Your task to perform on an android device: turn pop-ups on in chrome Image 0: 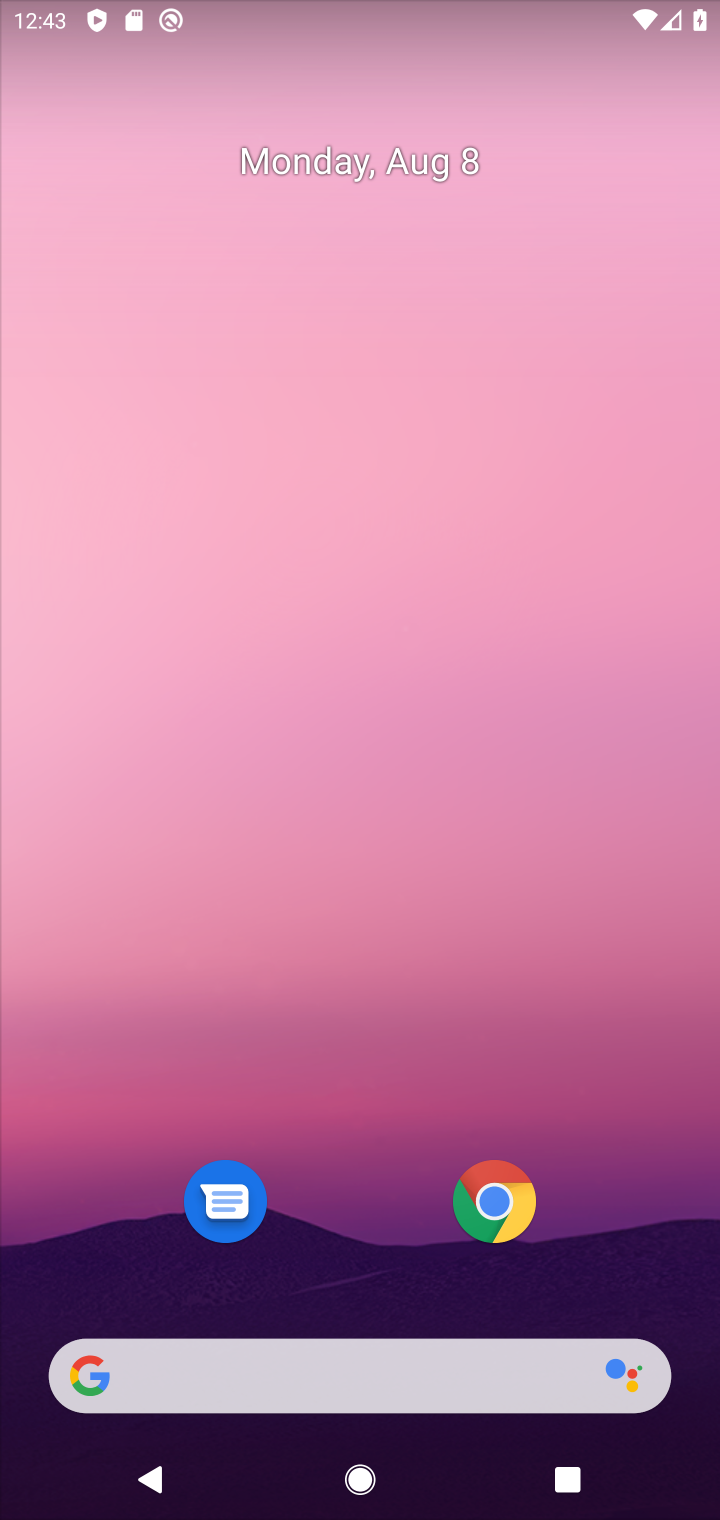
Step 0: drag from (438, 1405) to (378, 183)
Your task to perform on an android device: turn pop-ups on in chrome Image 1: 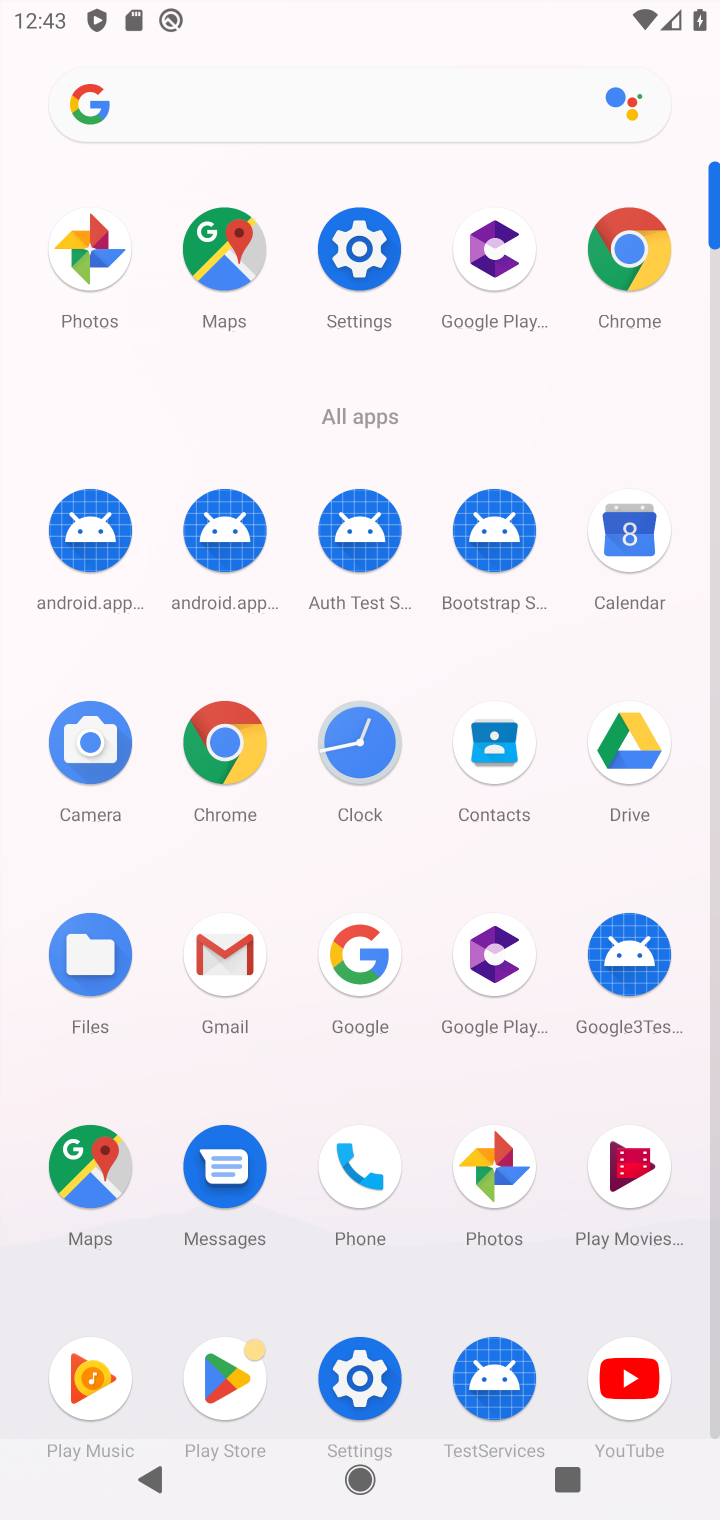
Step 1: click (350, 273)
Your task to perform on an android device: turn pop-ups on in chrome Image 2: 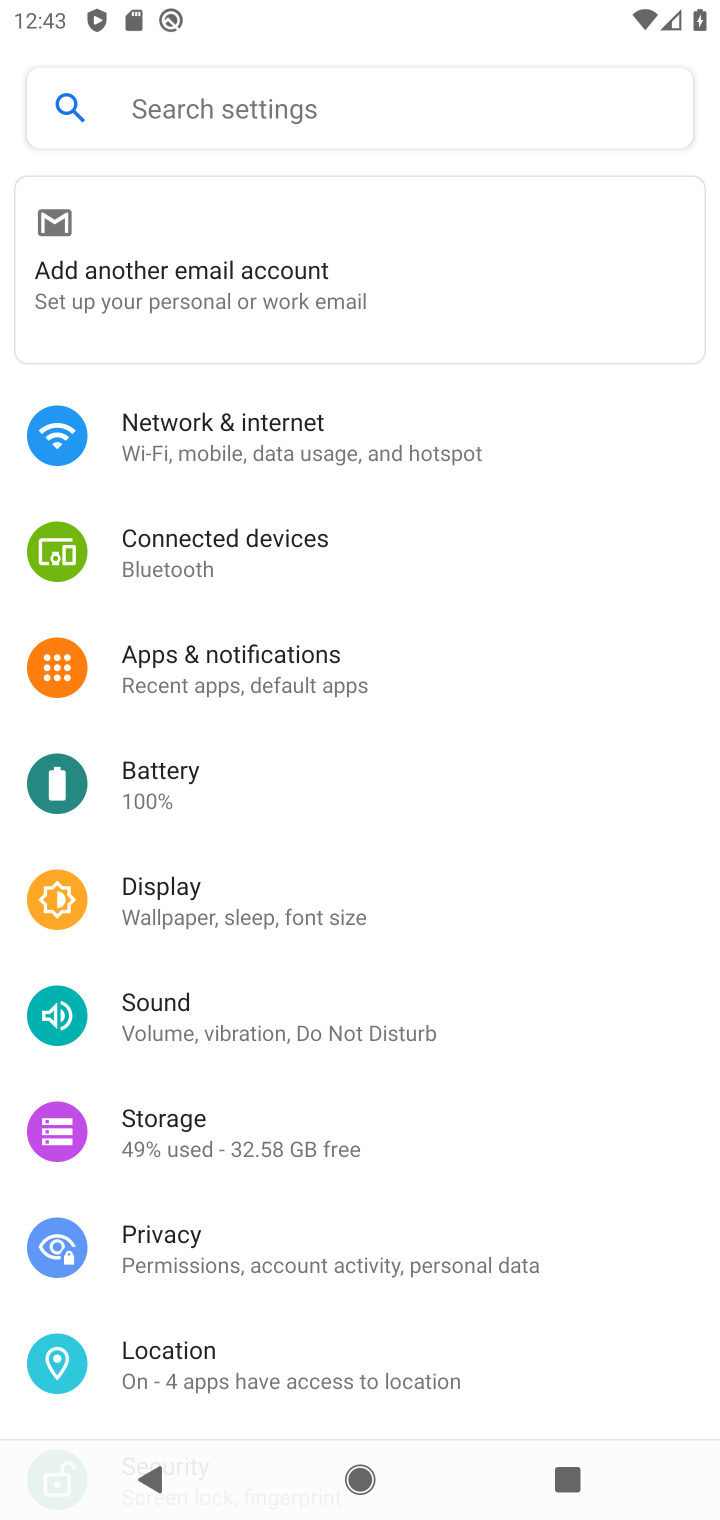
Step 2: press home button
Your task to perform on an android device: turn pop-ups on in chrome Image 3: 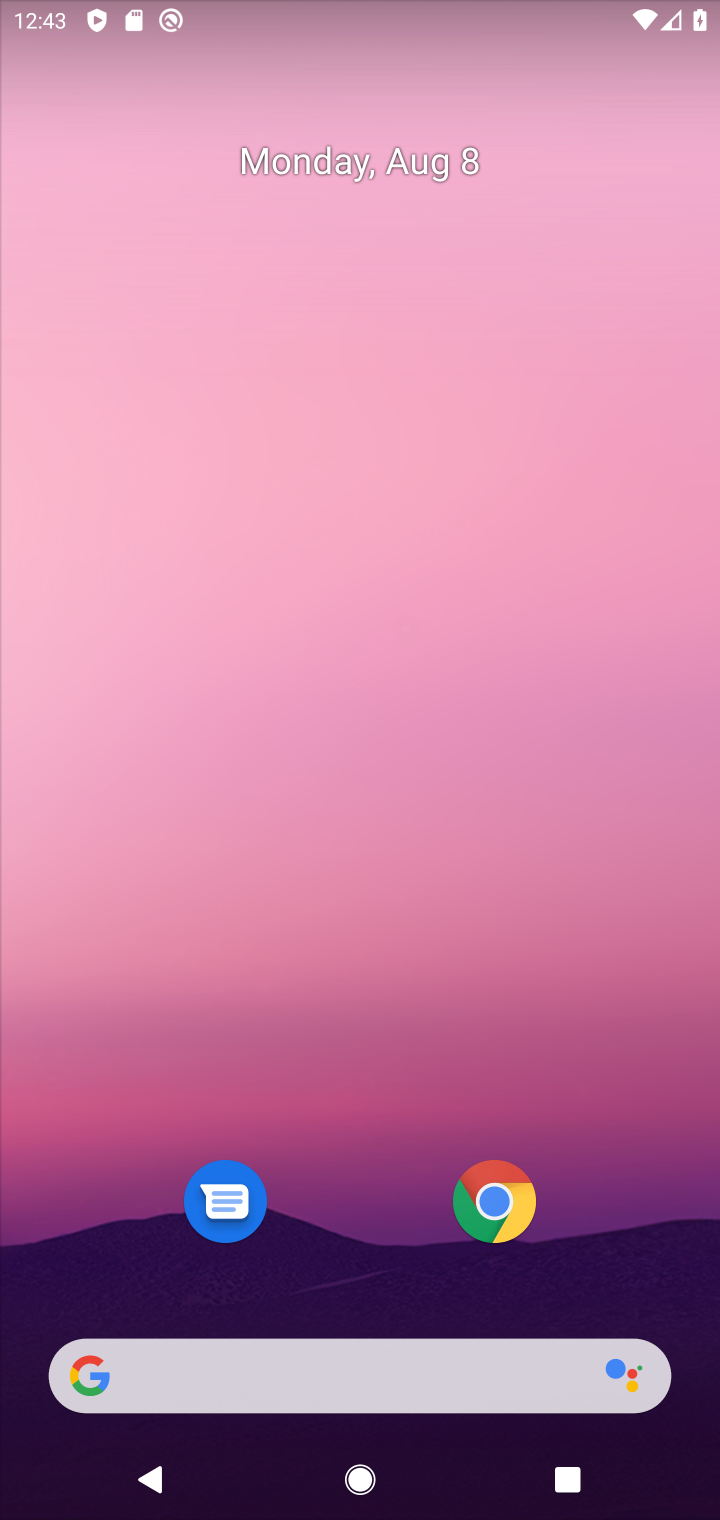
Step 3: click (494, 1194)
Your task to perform on an android device: turn pop-ups on in chrome Image 4: 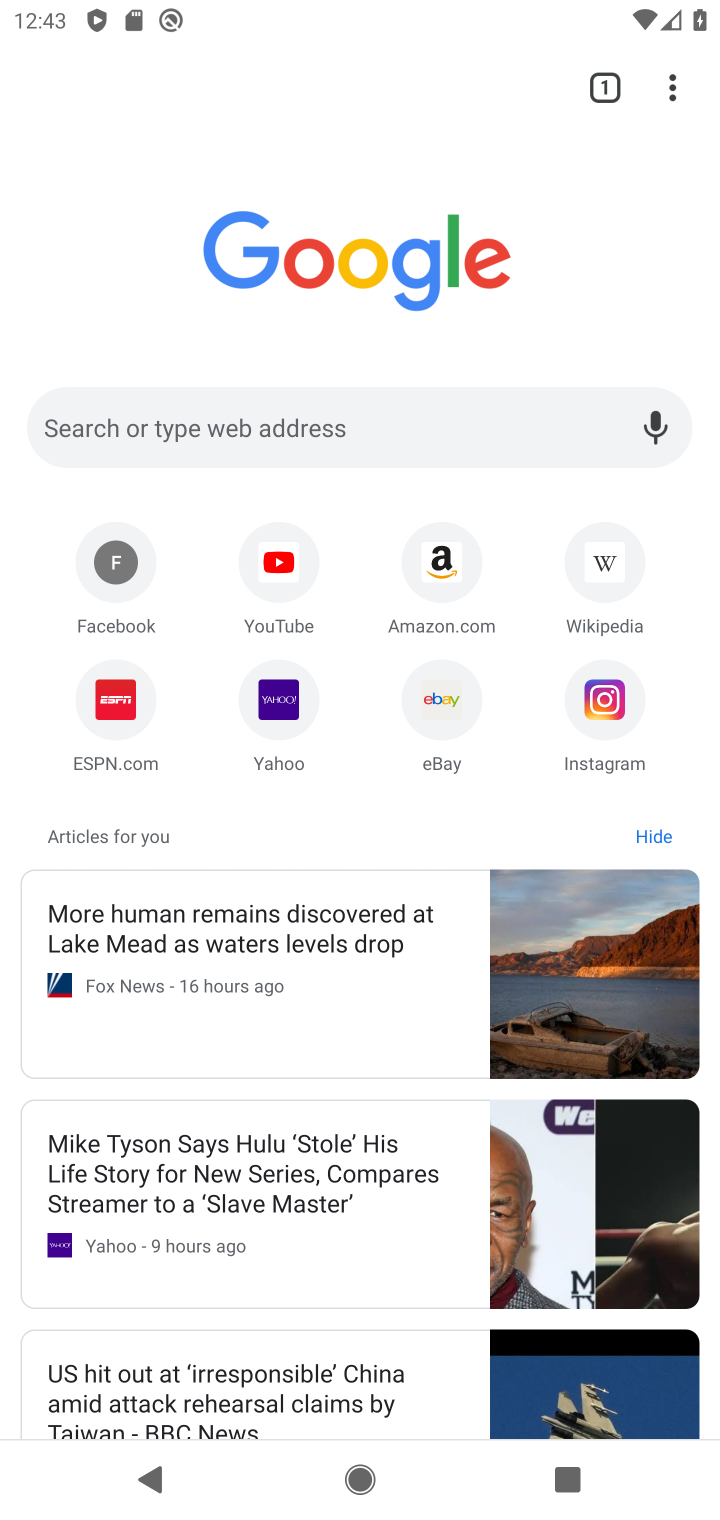
Step 4: click (681, 99)
Your task to perform on an android device: turn pop-ups on in chrome Image 5: 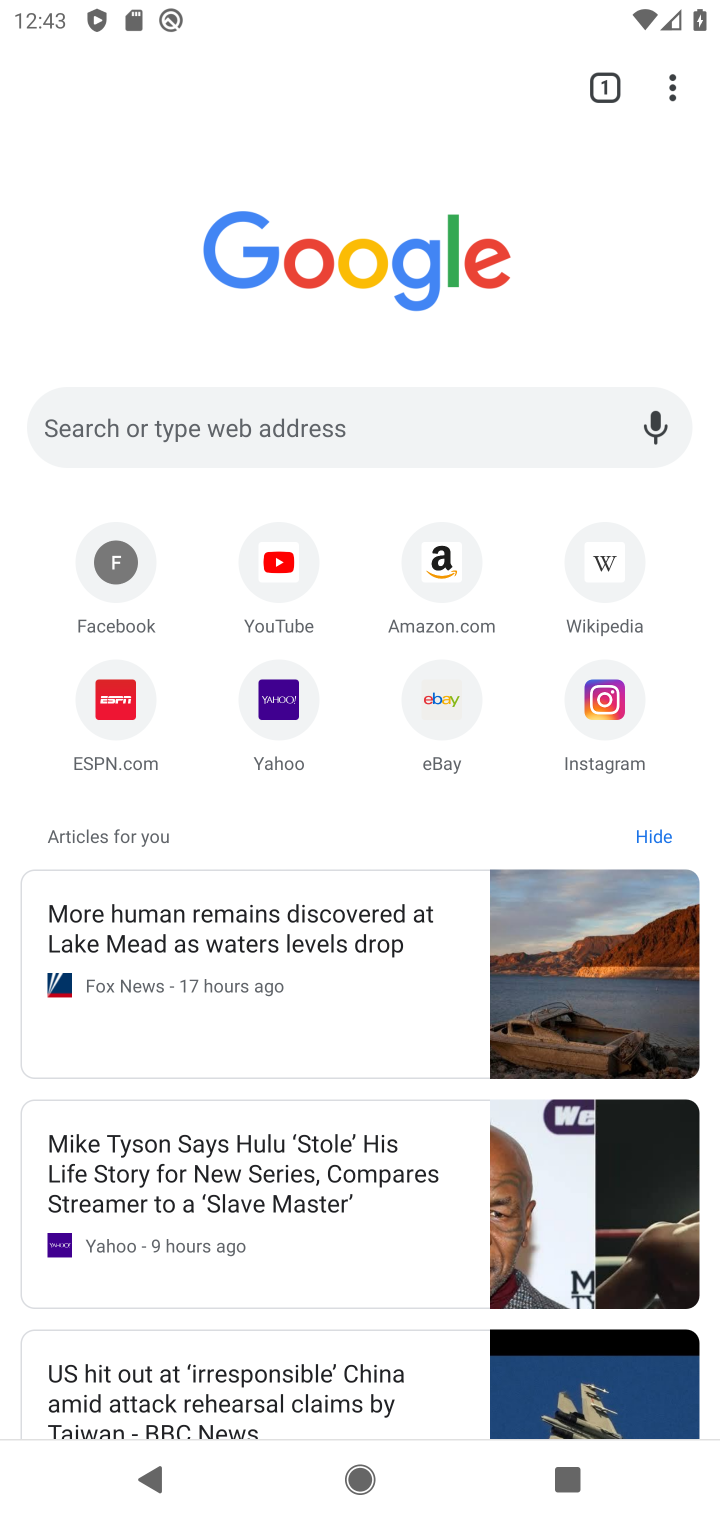
Step 5: click (670, 104)
Your task to perform on an android device: turn pop-ups on in chrome Image 6: 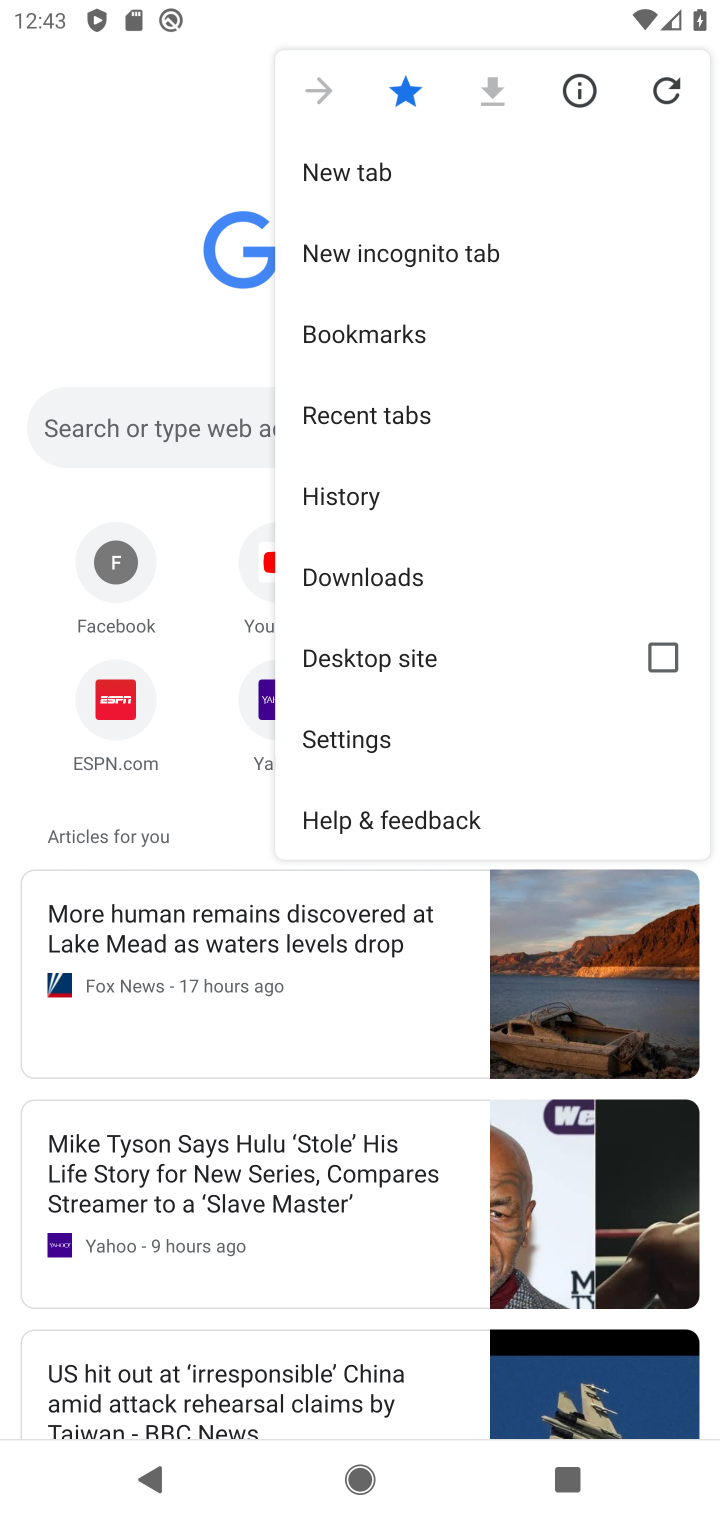
Step 6: click (353, 738)
Your task to perform on an android device: turn pop-ups on in chrome Image 7: 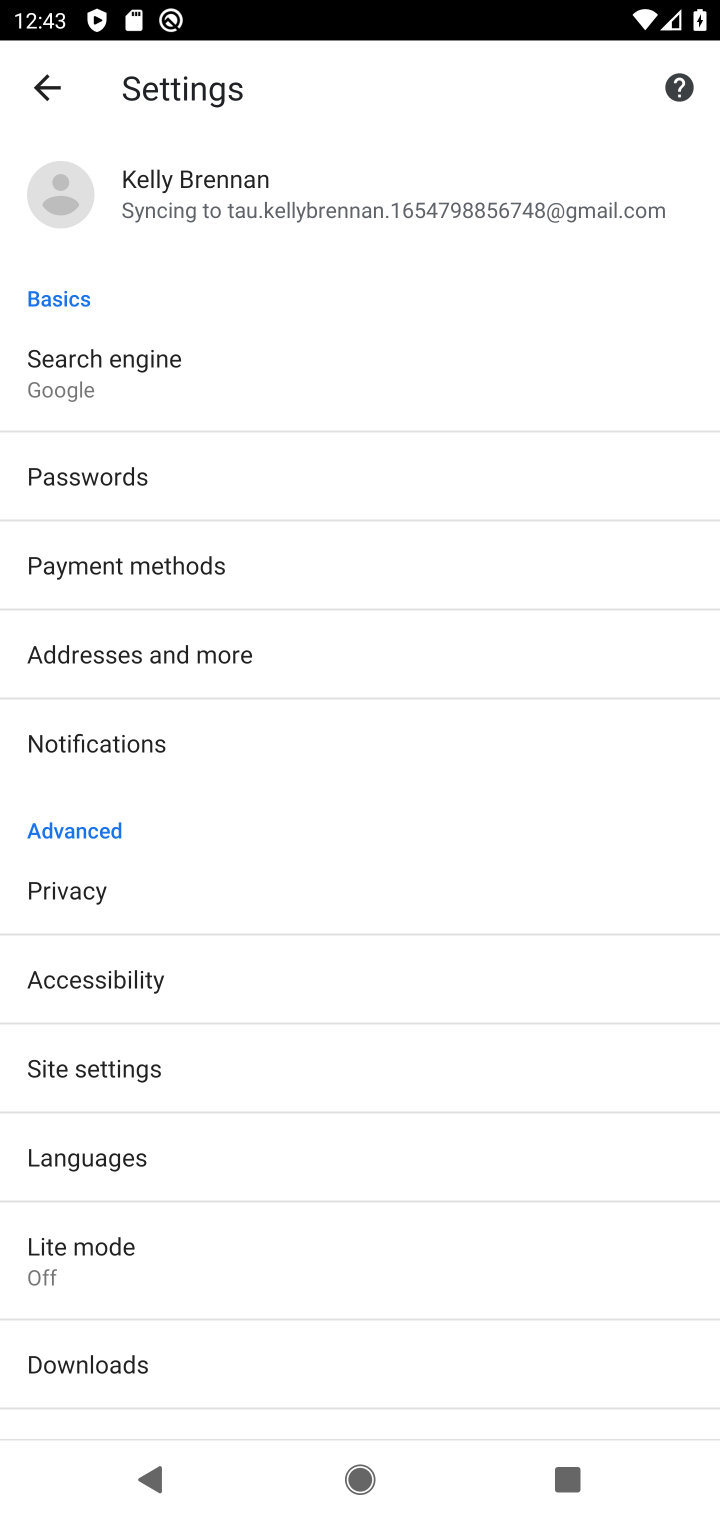
Step 7: drag from (252, 1182) to (309, 983)
Your task to perform on an android device: turn pop-ups on in chrome Image 8: 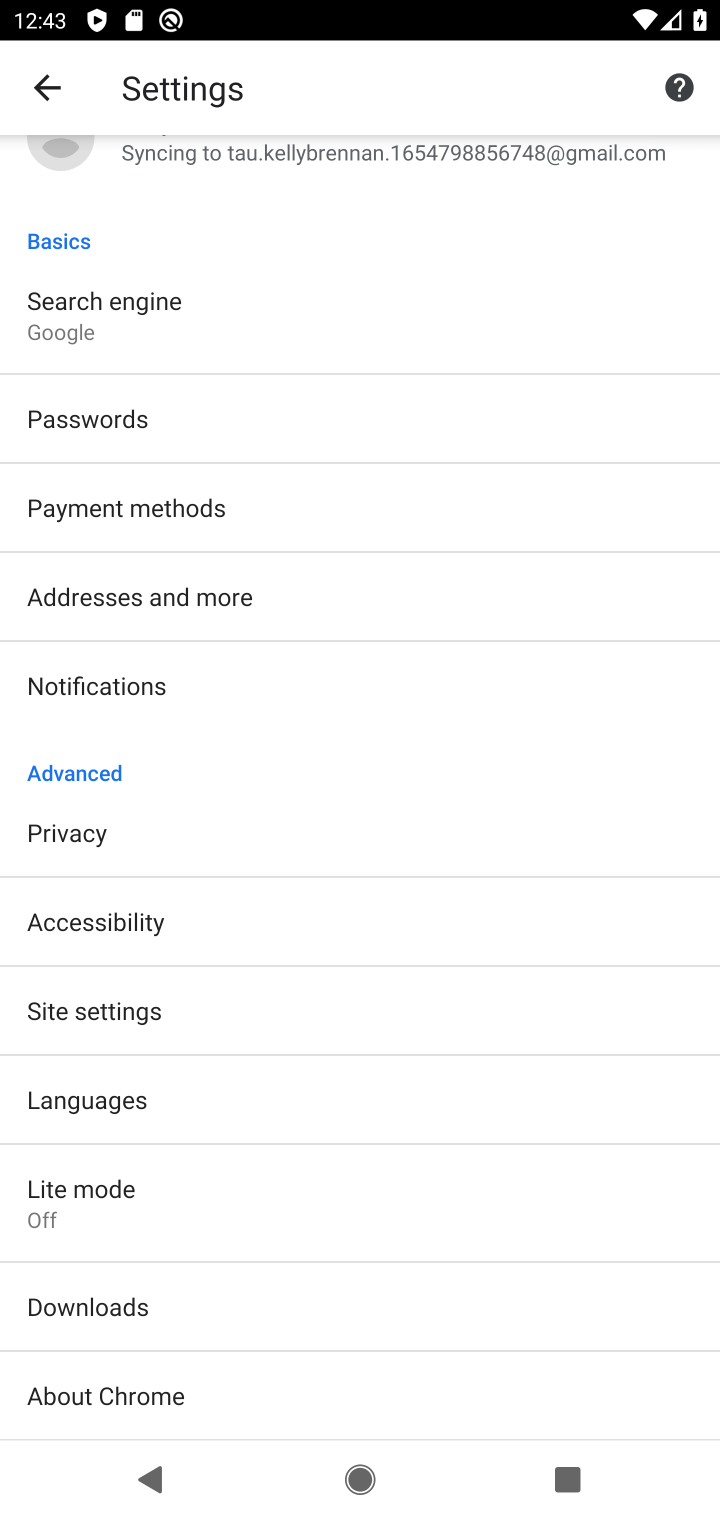
Step 8: click (136, 1015)
Your task to perform on an android device: turn pop-ups on in chrome Image 9: 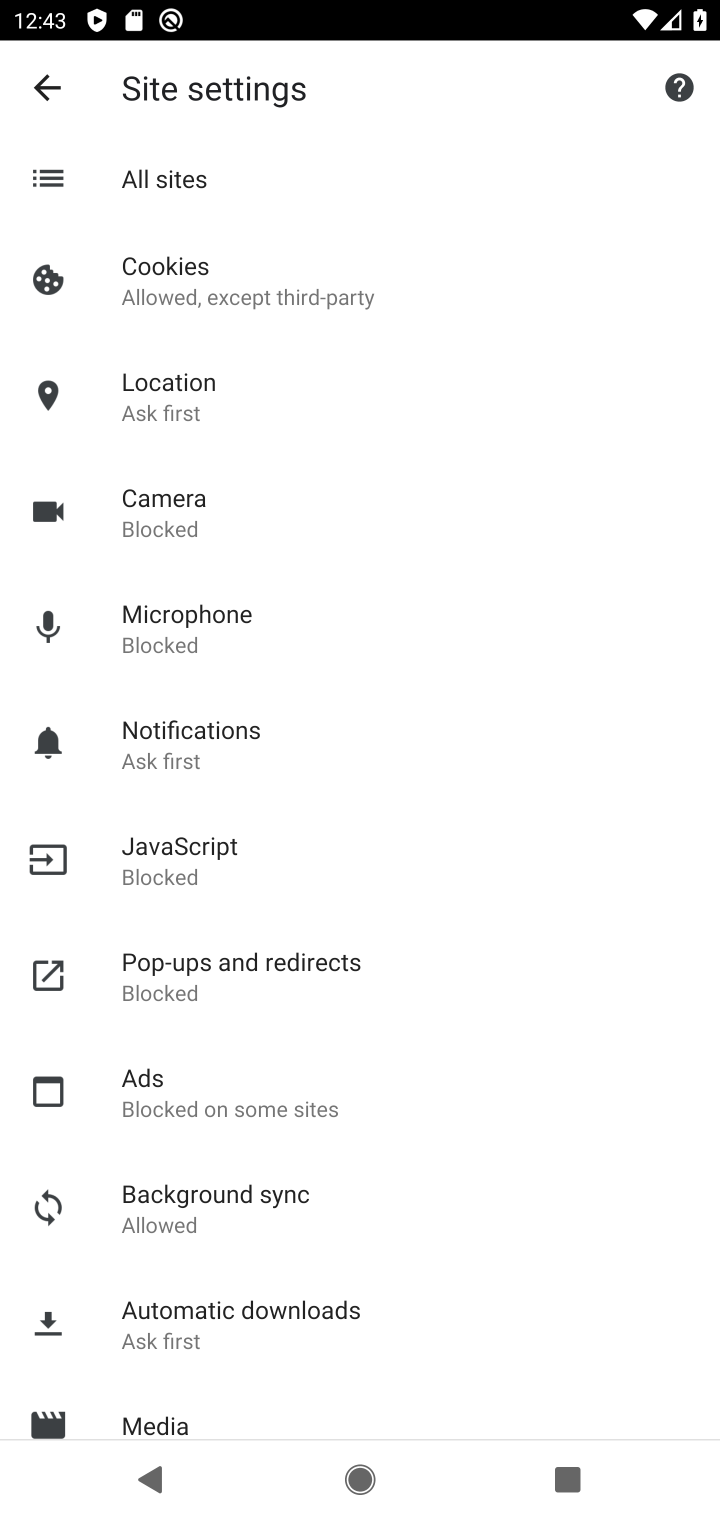
Step 9: click (248, 958)
Your task to perform on an android device: turn pop-ups on in chrome Image 10: 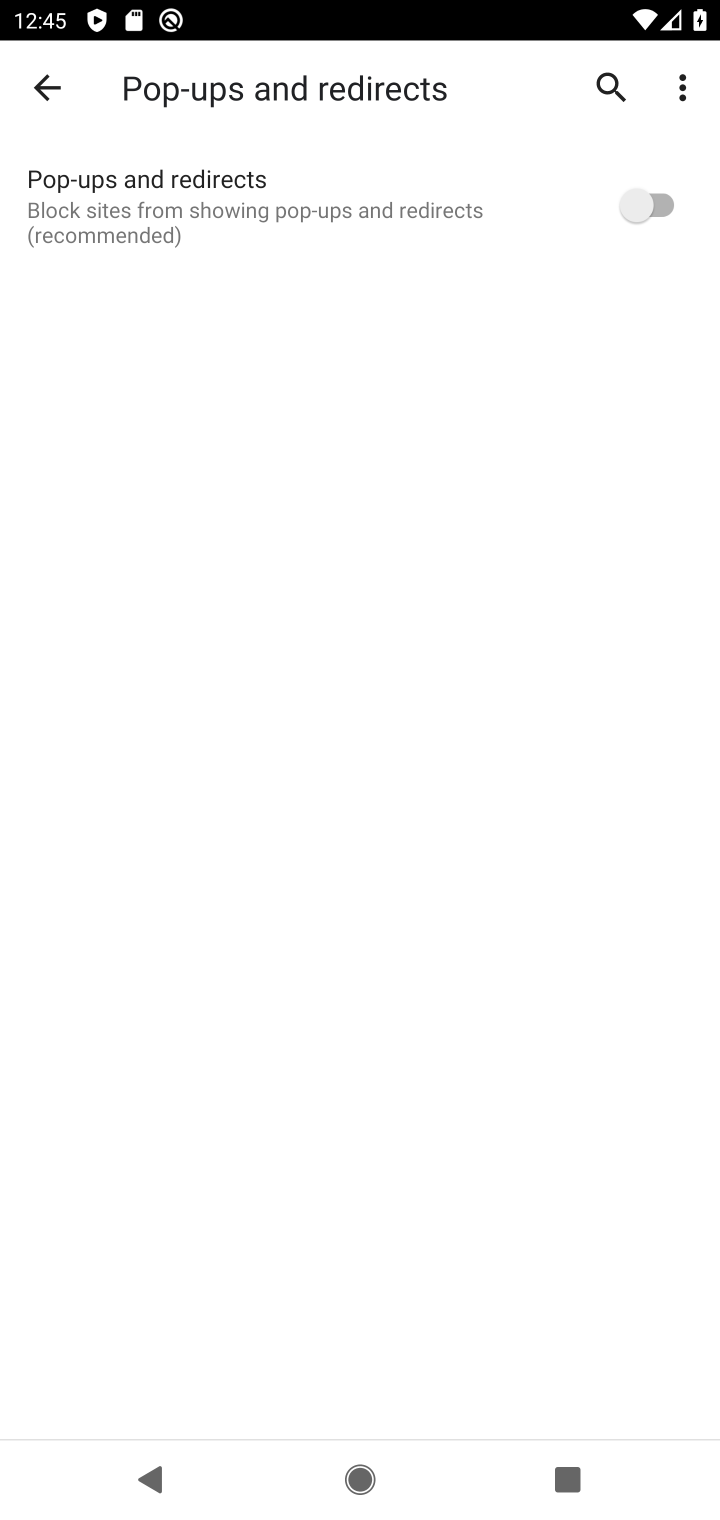
Step 10: click (624, 228)
Your task to perform on an android device: turn pop-ups on in chrome Image 11: 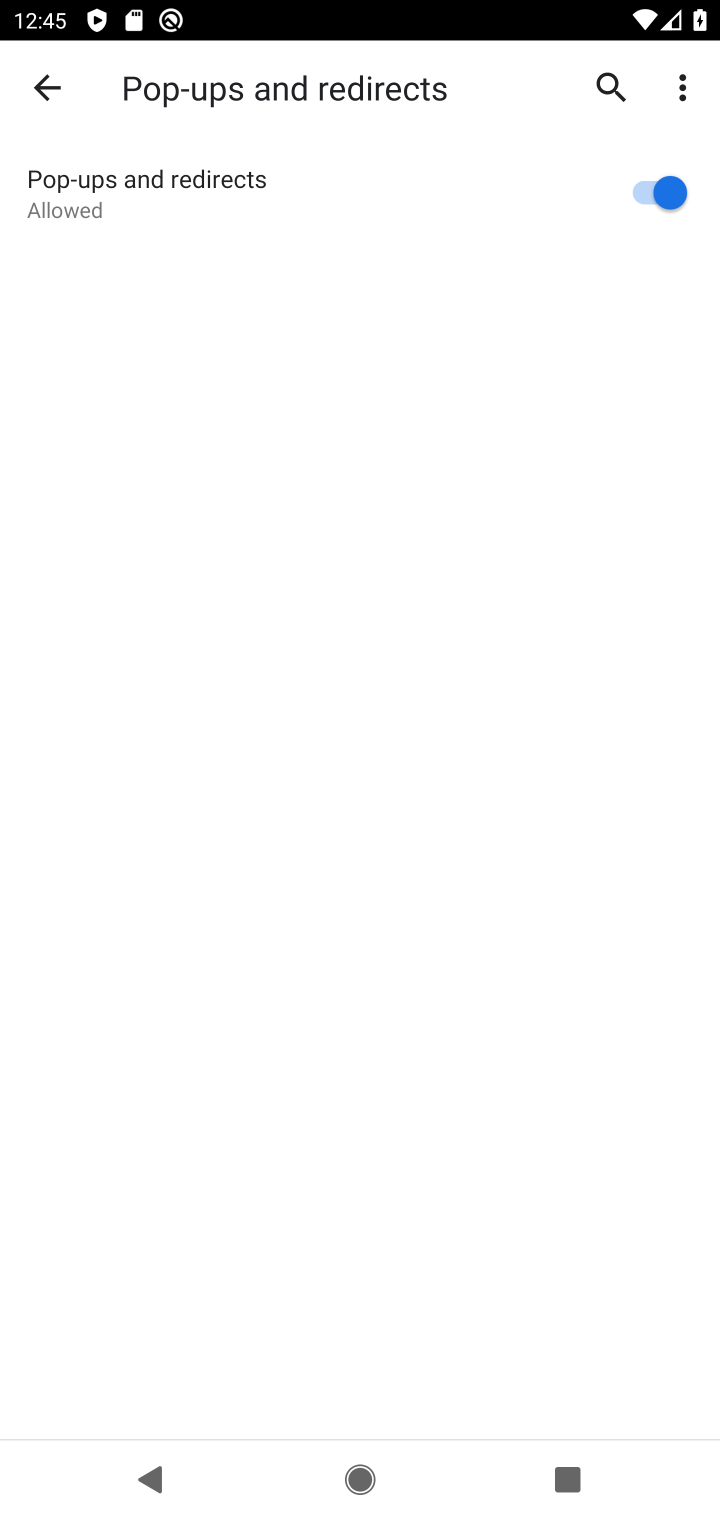
Step 11: task complete